Your task to perform on an android device: change text size in settings app Image 0: 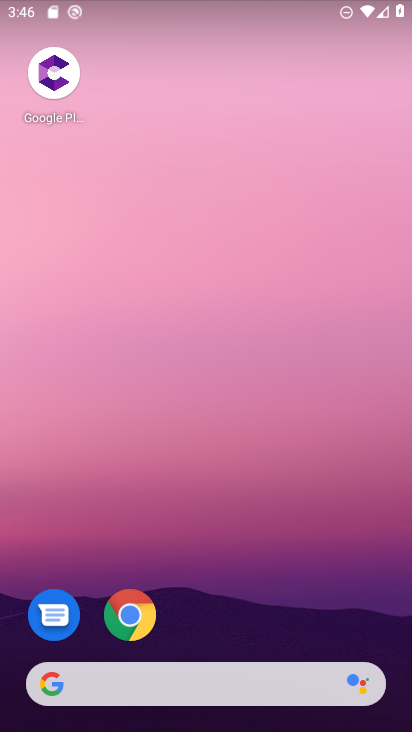
Step 0: drag from (262, 494) to (256, 52)
Your task to perform on an android device: change text size in settings app Image 1: 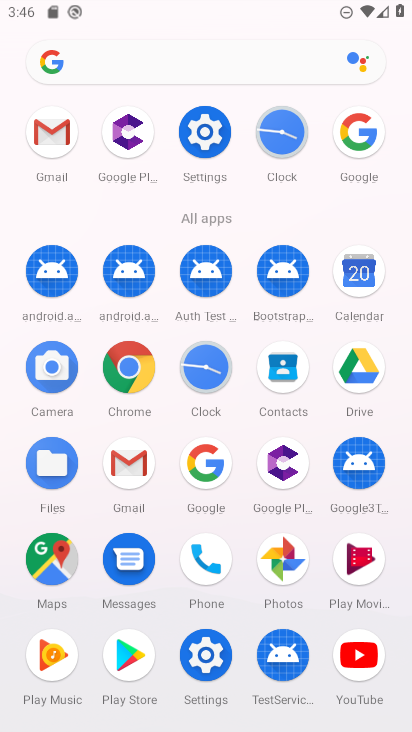
Step 1: click (206, 127)
Your task to perform on an android device: change text size in settings app Image 2: 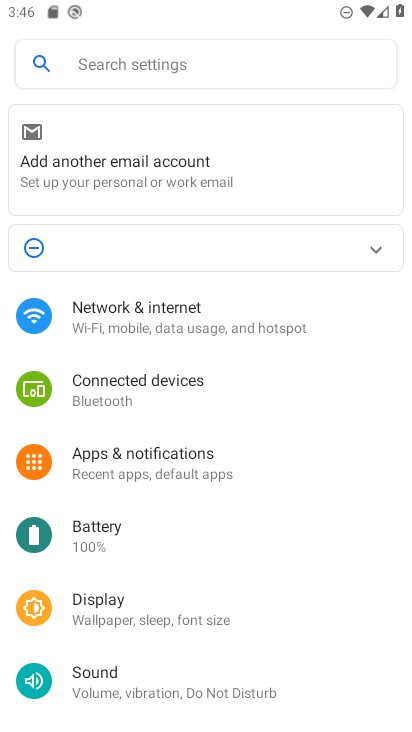
Step 2: click (138, 618)
Your task to perform on an android device: change text size in settings app Image 3: 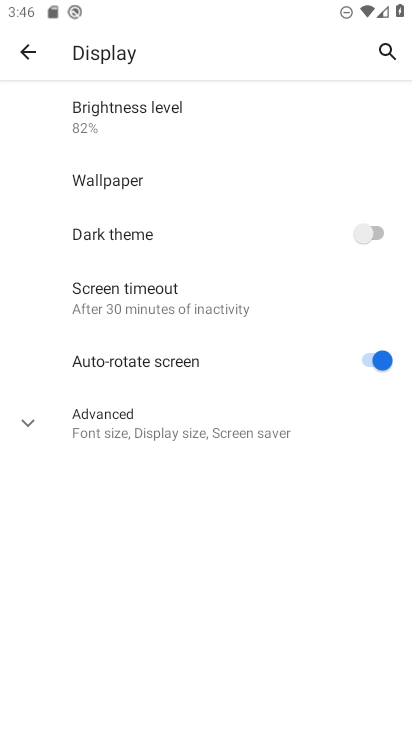
Step 3: click (164, 434)
Your task to perform on an android device: change text size in settings app Image 4: 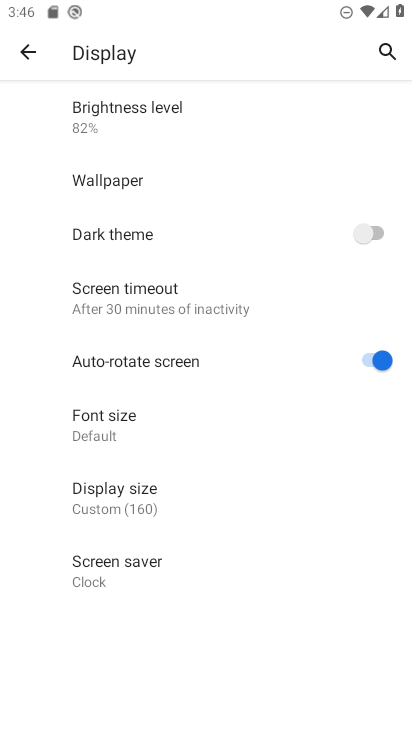
Step 4: click (113, 428)
Your task to perform on an android device: change text size in settings app Image 5: 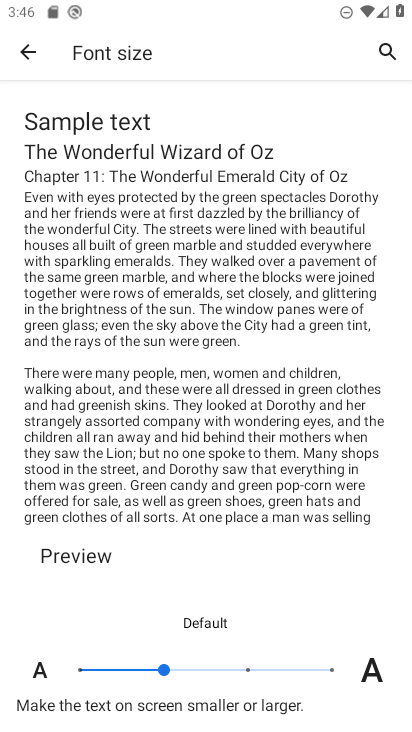
Step 5: click (80, 668)
Your task to perform on an android device: change text size in settings app Image 6: 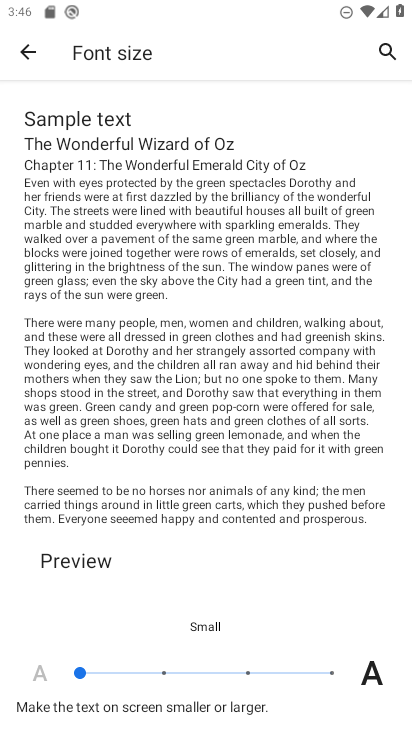
Step 6: task complete